Your task to perform on an android device: What is the recent news? Image 0: 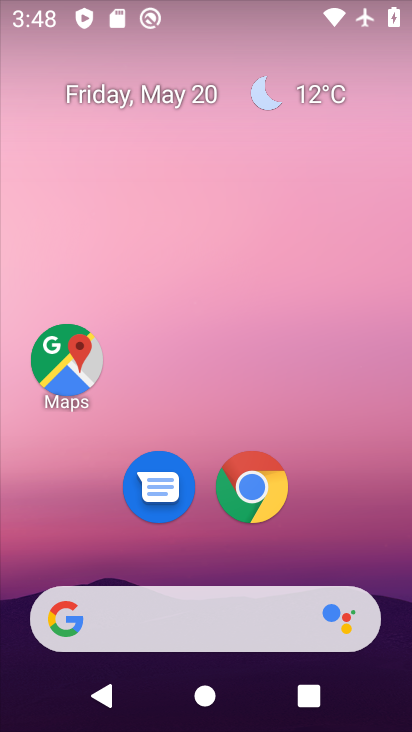
Step 0: drag from (222, 153) to (198, 1)
Your task to perform on an android device: What is the recent news? Image 1: 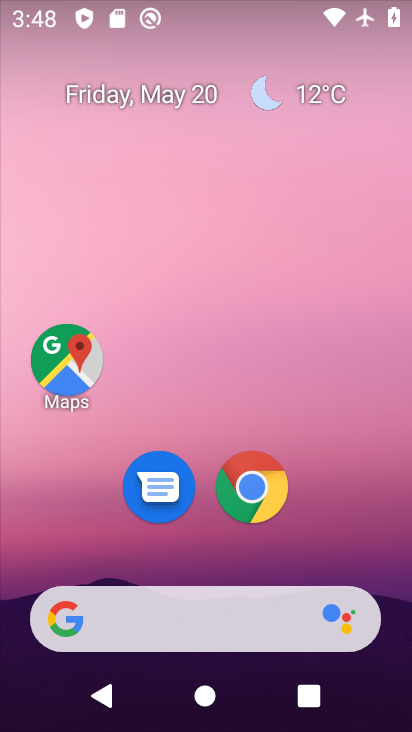
Step 1: drag from (288, 477) to (243, 16)
Your task to perform on an android device: What is the recent news? Image 2: 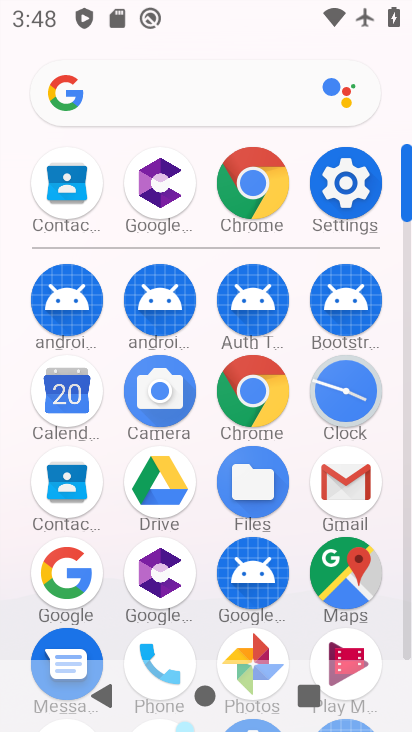
Step 2: click (61, 582)
Your task to perform on an android device: What is the recent news? Image 3: 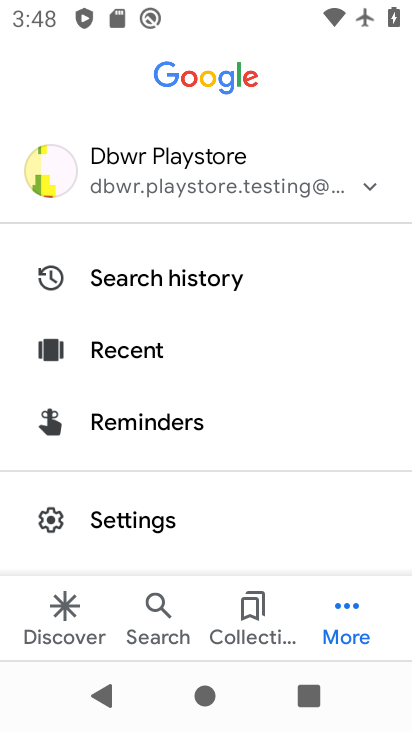
Step 3: press back button
Your task to perform on an android device: What is the recent news? Image 4: 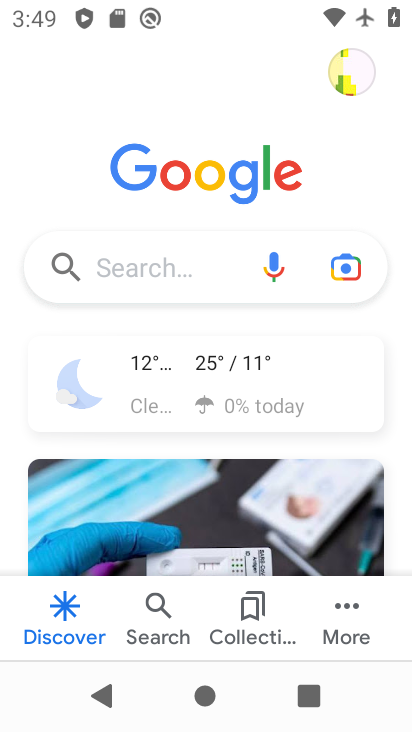
Step 4: click (130, 279)
Your task to perform on an android device: What is the recent news? Image 5: 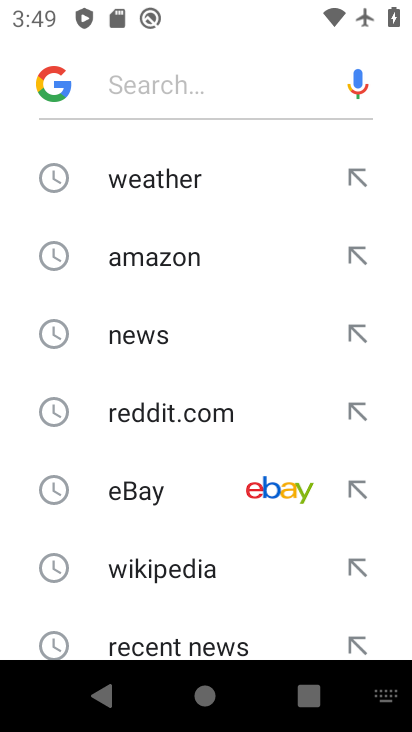
Step 5: click (155, 644)
Your task to perform on an android device: What is the recent news? Image 6: 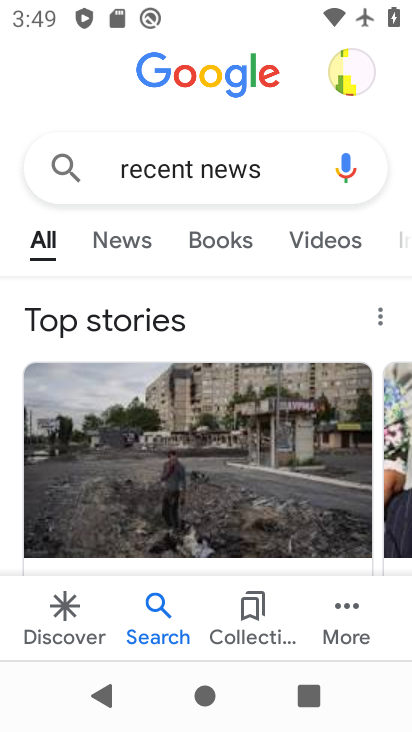
Step 6: task complete